Your task to perform on an android device: Show me popular games on the Play Store Image 0: 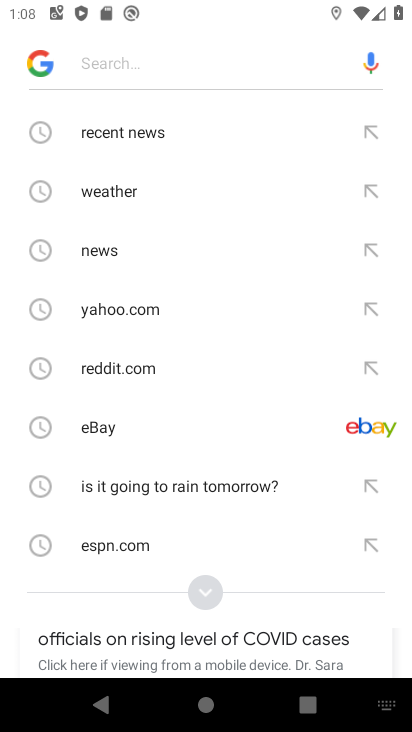
Step 0: press home button
Your task to perform on an android device: Show me popular games on the Play Store Image 1: 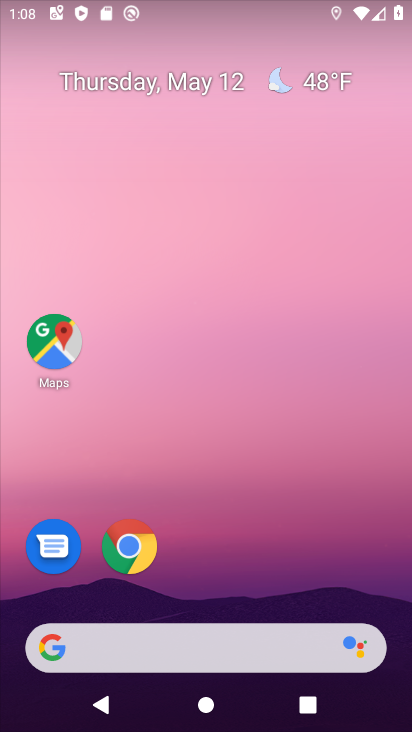
Step 1: drag from (132, 653) to (298, 127)
Your task to perform on an android device: Show me popular games on the Play Store Image 2: 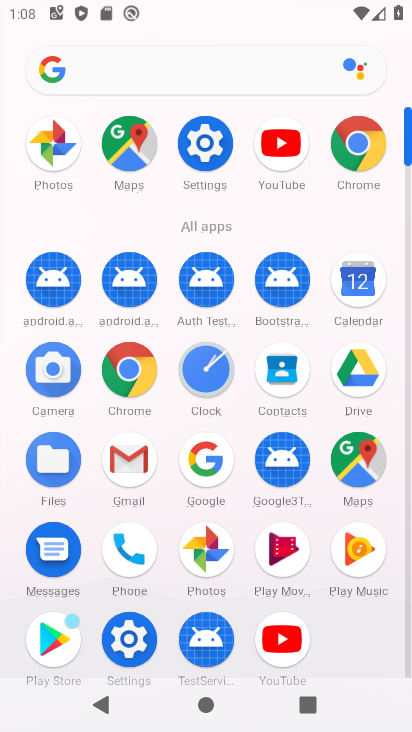
Step 2: click (49, 635)
Your task to perform on an android device: Show me popular games on the Play Store Image 3: 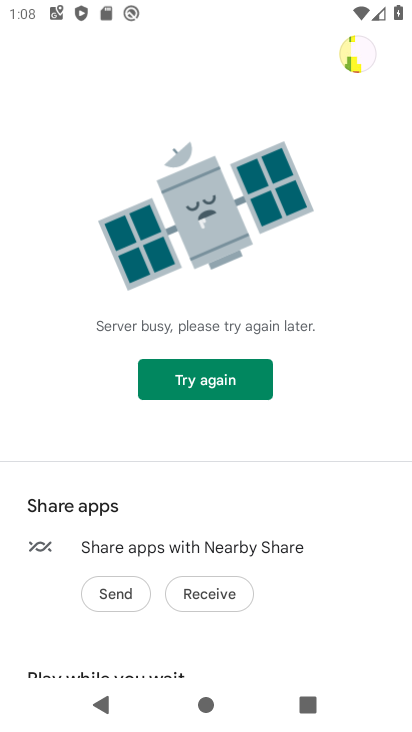
Step 3: click (224, 386)
Your task to perform on an android device: Show me popular games on the Play Store Image 4: 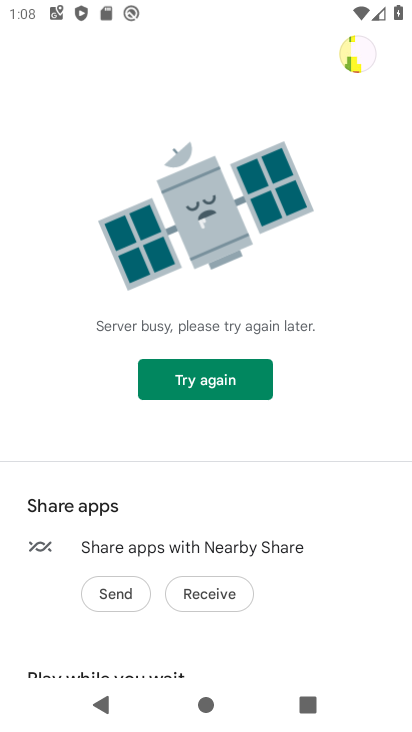
Step 4: drag from (178, 545) to (358, 132)
Your task to perform on an android device: Show me popular games on the Play Store Image 5: 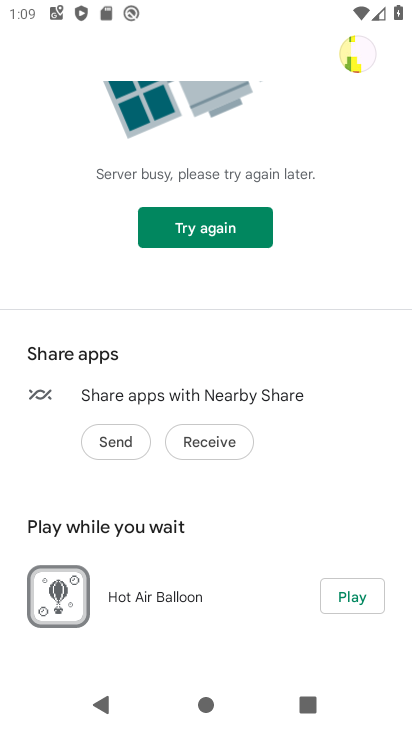
Step 5: click (221, 229)
Your task to perform on an android device: Show me popular games on the Play Store Image 6: 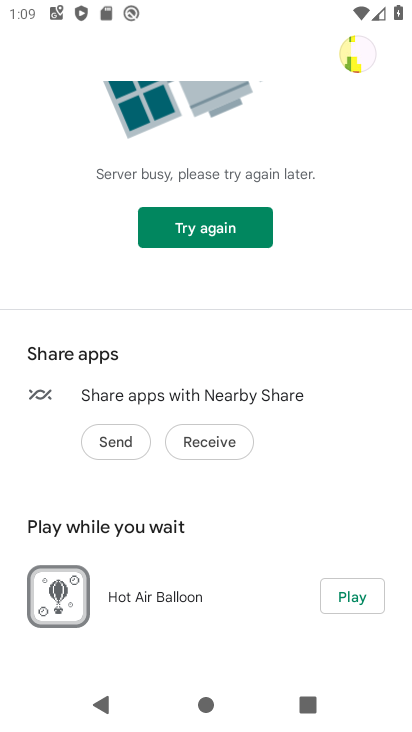
Step 6: task complete